Your task to perform on an android device: check the backup settings in the google photos Image 0: 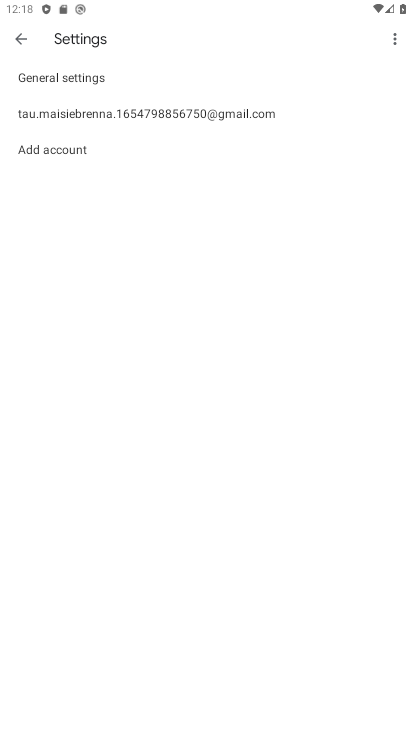
Step 0: press home button
Your task to perform on an android device: check the backup settings in the google photos Image 1: 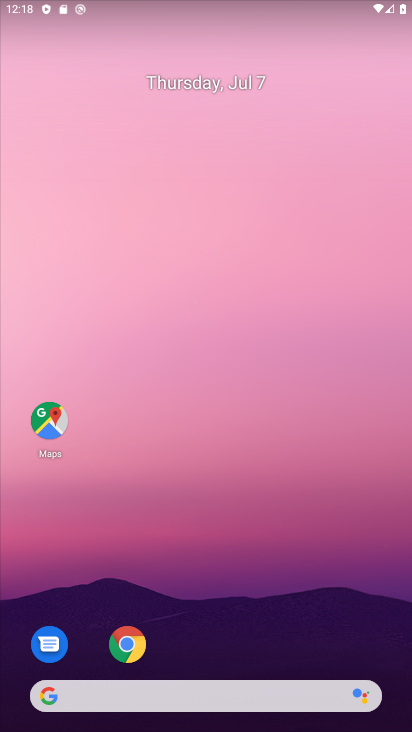
Step 1: drag from (199, 698) to (3, 155)
Your task to perform on an android device: check the backup settings in the google photos Image 2: 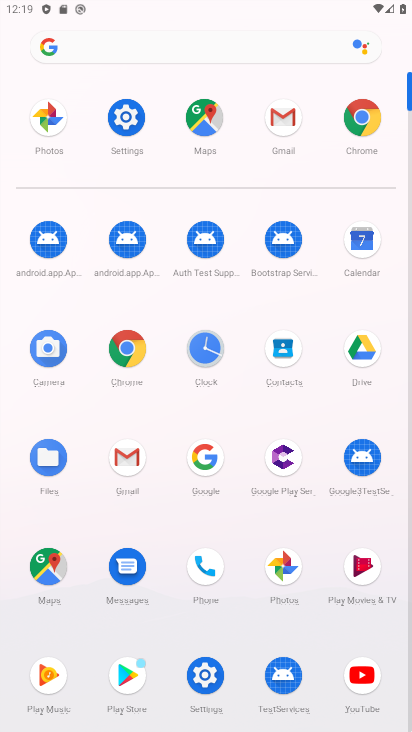
Step 2: click (51, 131)
Your task to perform on an android device: check the backup settings in the google photos Image 3: 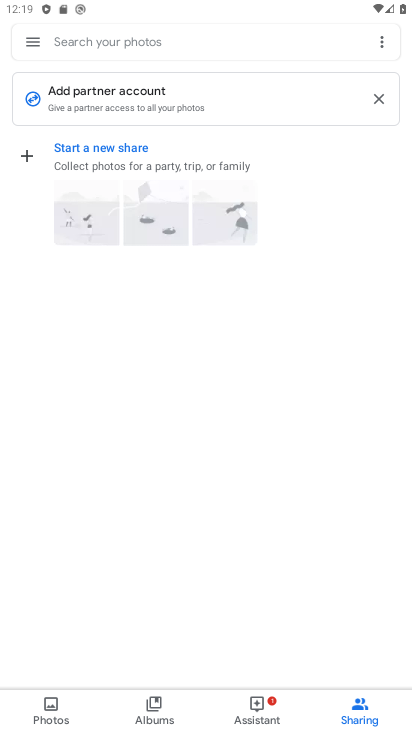
Step 3: click (49, 718)
Your task to perform on an android device: check the backup settings in the google photos Image 4: 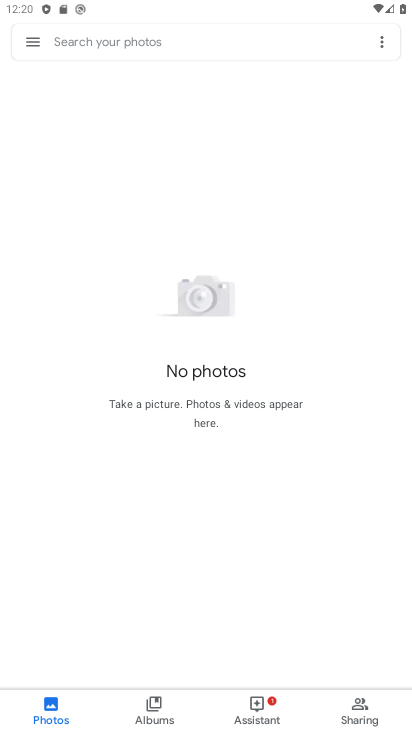
Step 4: click (35, 44)
Your task to perform on an android device: check the backup settings in the google photos Image 5: 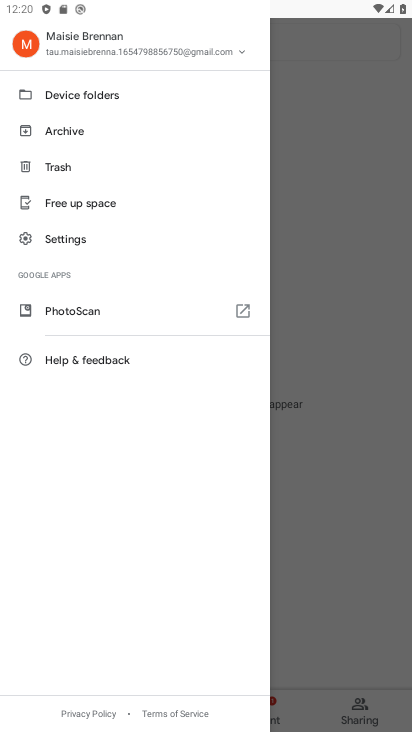
Step 5: click (66, 251)
Your task to perform on an android device: check the backup settings in the google photos Image 6: 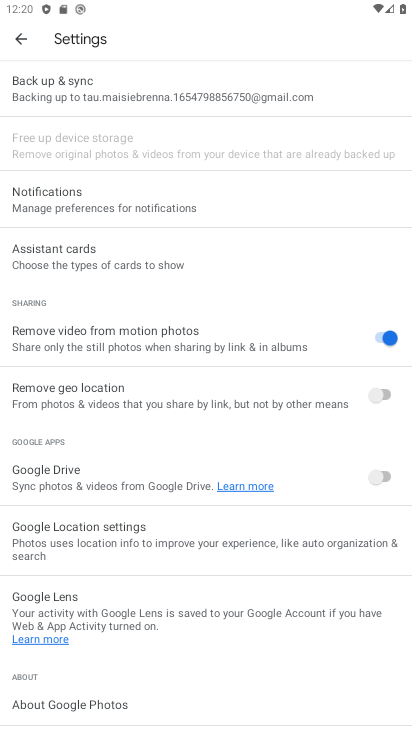
Step 6: click (71, 96)
Your task to perform on an android device: check the backup settings in the google photos Image 7: 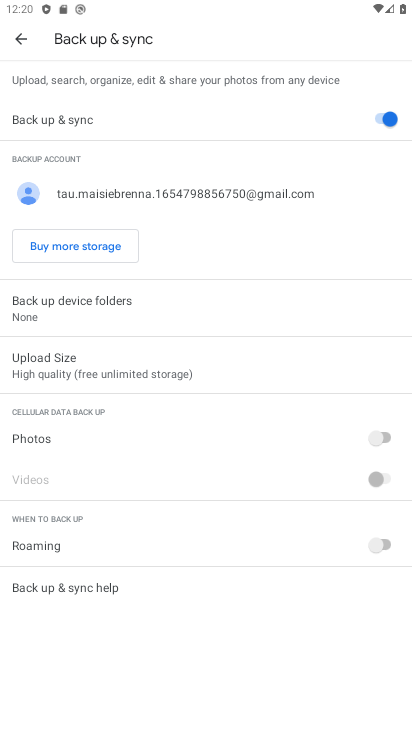
Step 7: task complete